Your task to perform on an android device: turn off improve location accuracy Image 0: 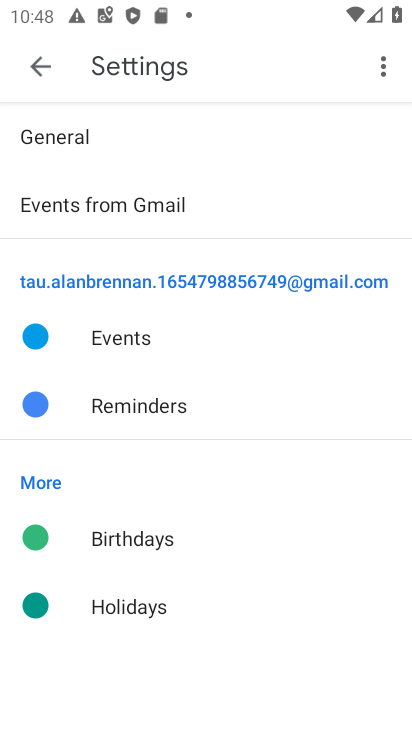
Step 0: press home button
Your task to perform on an android device: turn off improve location accuracy Image 1: 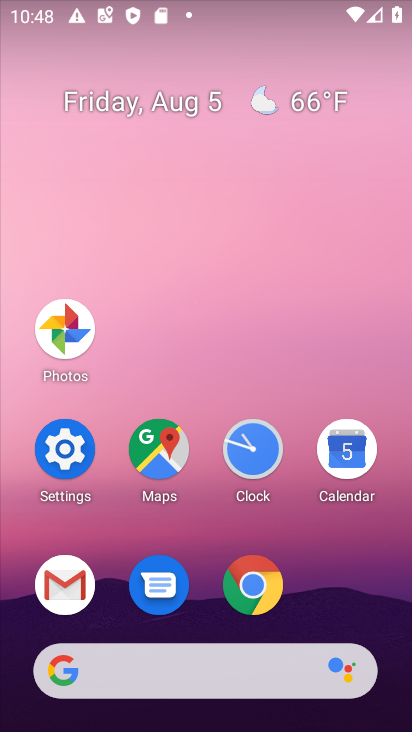
Step 1: click (68, 449)
Your task to perform on an android device: turn off improve location accuracy Image 2: 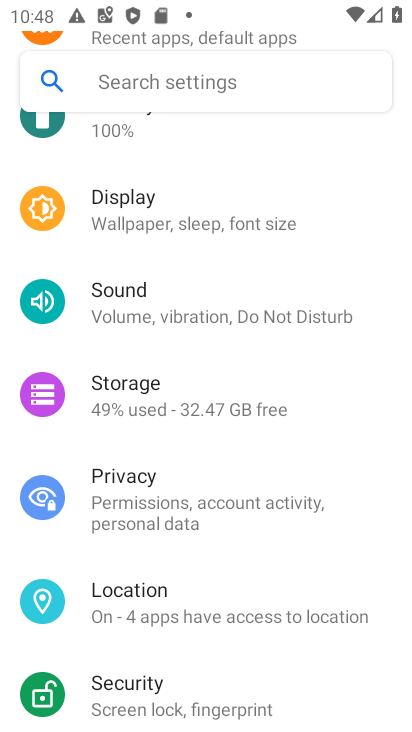
Step 2: click (147, 587)
Your task to perform on an android device: turn off improve location accuracy Image 3: 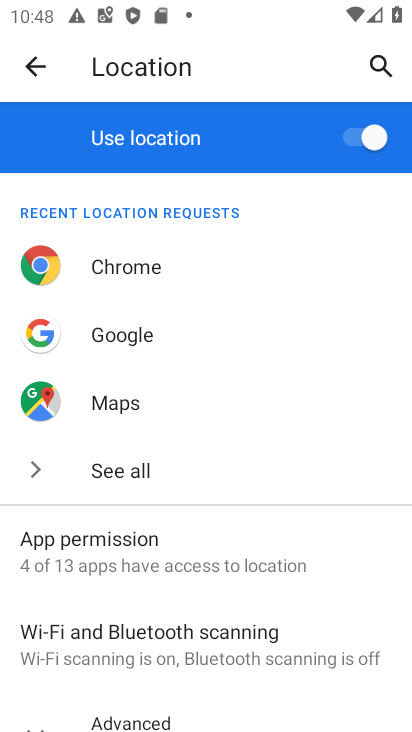
Step 3: drag from (271, 529) to (255, 235)
Your task to perform on an android device: turn off improve location accuracy Image 4: 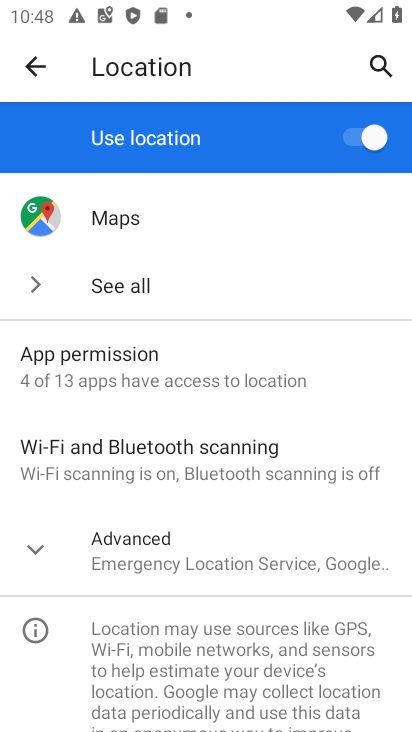
Step 4: click (32, 556)
Your task to perform on an android device: turn off improve location accuracy Image 5: 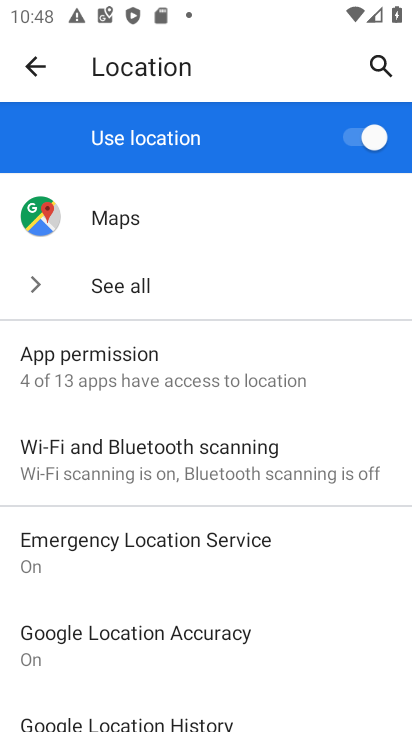
Step 5: click (155, 623)
Your task to perform on an android device: turn off improve location accuracy Image 6: 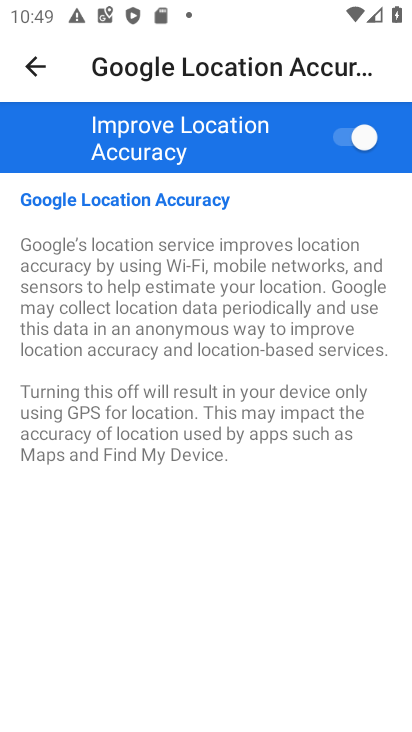
Step 6: click (357, 135)
Your task to perform on an android device: turn off improve location accuracy Image 7: 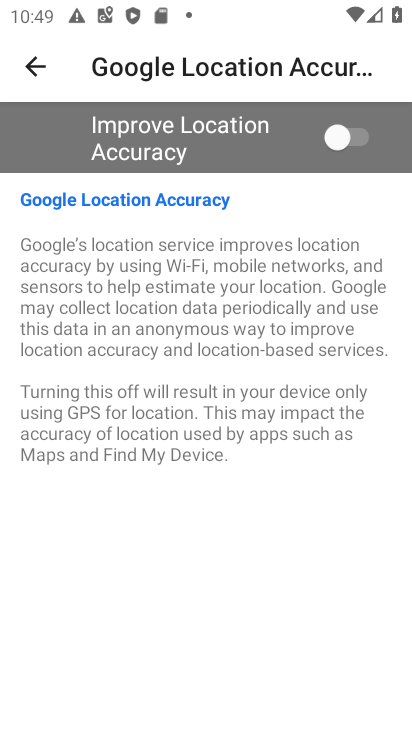
Step 7: task complete